Your task to perform on an android device: open a new tab in the chrome app Image 0: 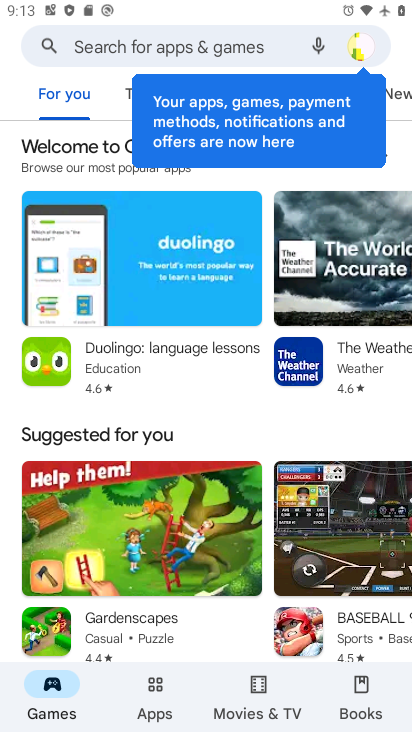
Step 0: press home button
Your task to perform on an android device: open a new tab in the chrome app Image 1: 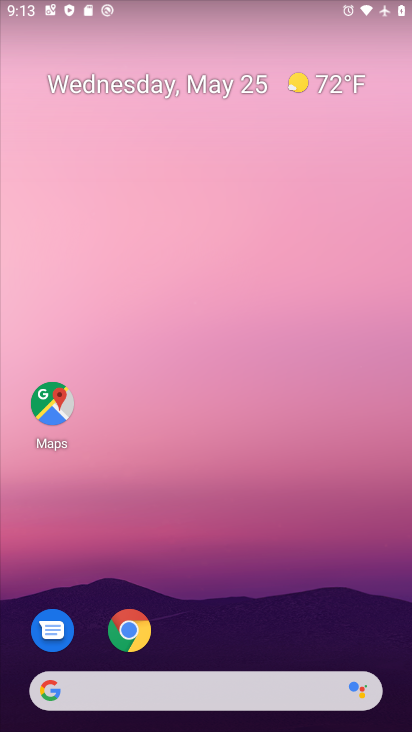
Step 1: click (139, 628)
Your task to perform on an android device: open a new tab in the chrome app Image 2: 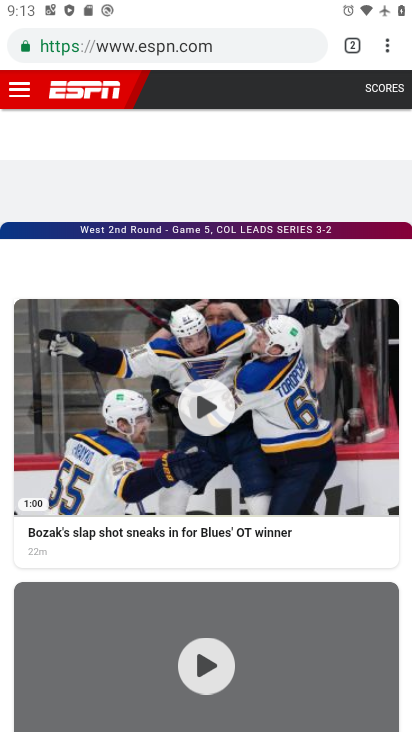
Step 2: click (351, 44)
Your task to perform on an android device: open a new tab in the chrome app Image 3: 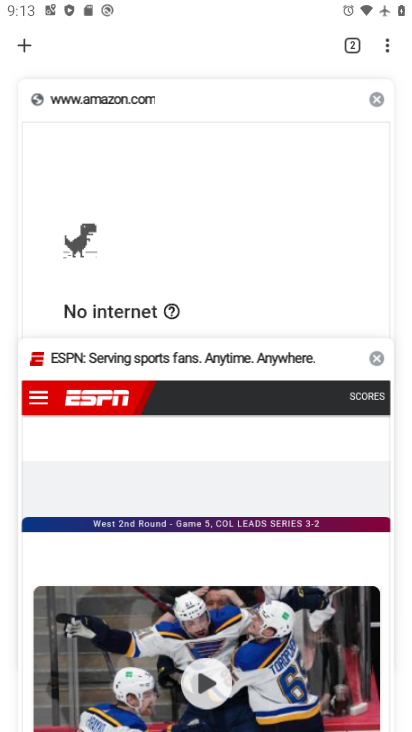
Step 3: click (18, 51)
Your task to perform on an android device: open a new tab in the chrome app Image 4: 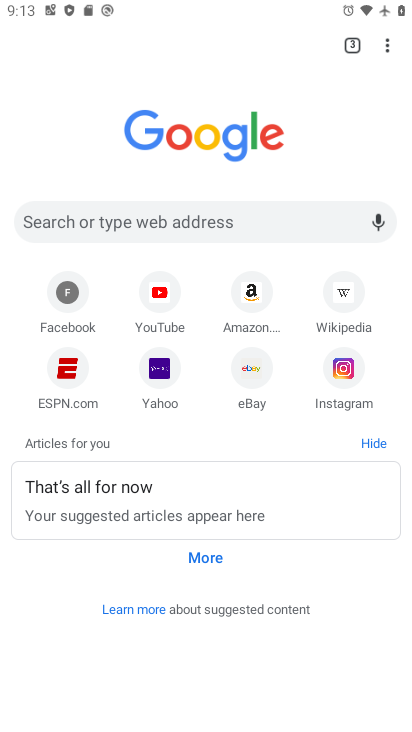
Step 4: task complete